Your task to perform on an android device: Search for Italian restaurants on Maps Image 0: 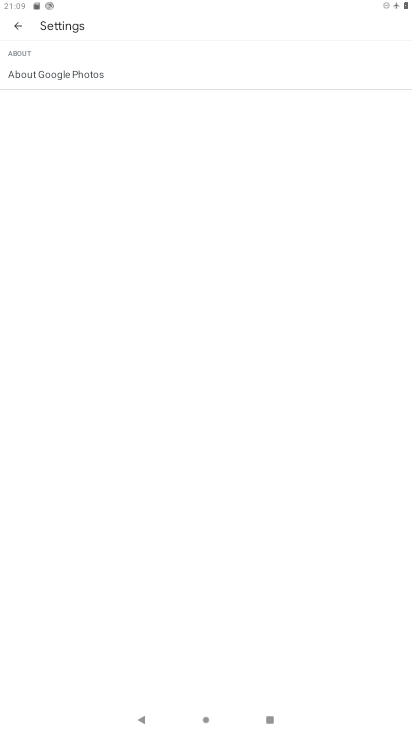
Step 0: press home button
Your task to perform on an android device: Search for Italian restaurants on Maps Image 1: 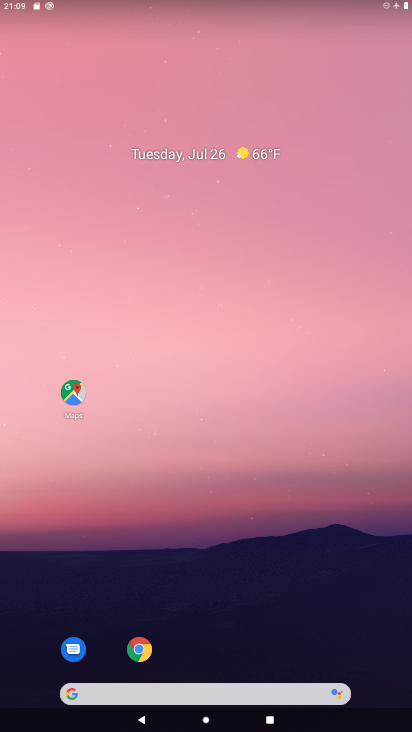
Step 1: drag from (101, 707) to (235, 92)
Your task to perform on an android device: Search for Italian restaurants on Maps Image 2: 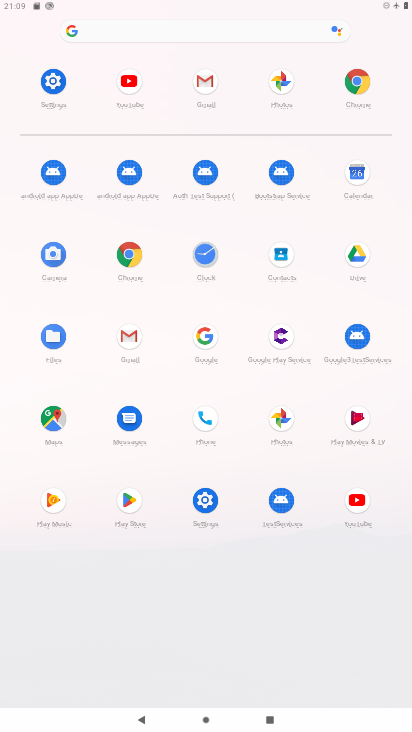
Step 2: click (54, 423)
Your task to perform on an android device: Search for Italian restaurants on Maps Image 3: 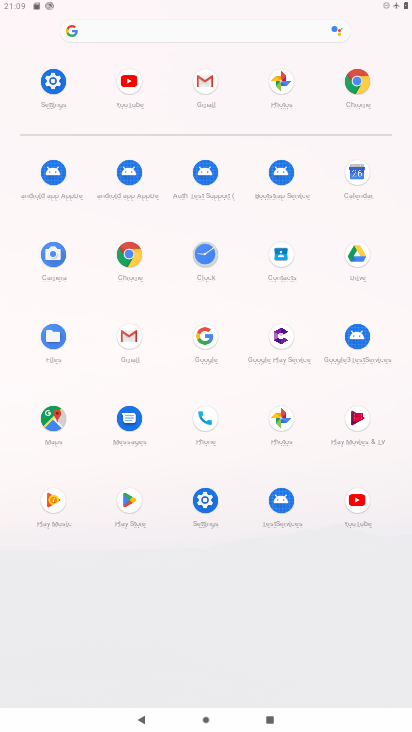
Step 3: click (54, 423)
Your task to perform on an android device: Search for Italian restaurants on Maps Image 4: 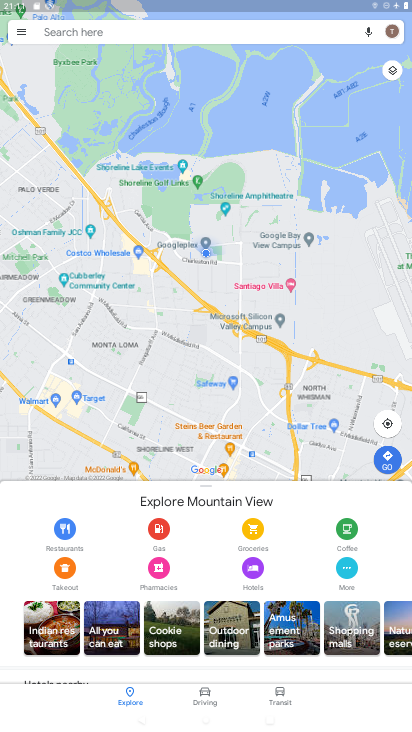
Step 4: click (110, 38)
Your task to perform on an android device: Search for Italian restaurants on Maps Image 5: 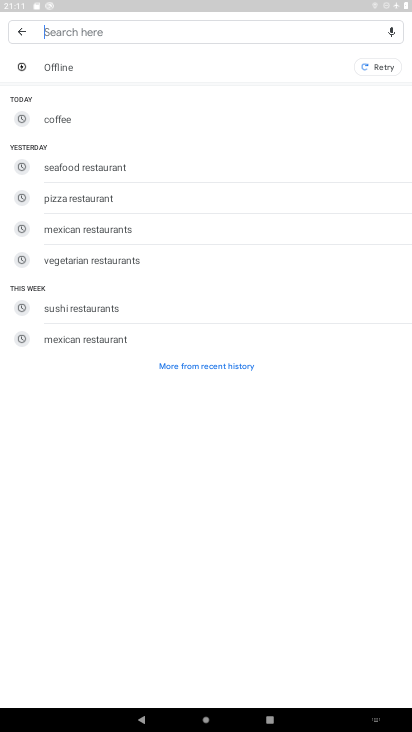
Step 5: type "itilain res"
Your task to perform on an android device: Search for Italian restaurants on Maps Image 6: 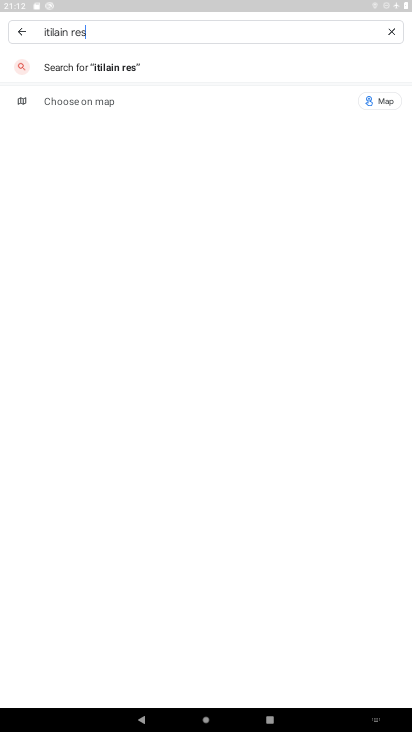
Step 6: task complete